Your task to perform on an android device: Open Amazon Image 0: 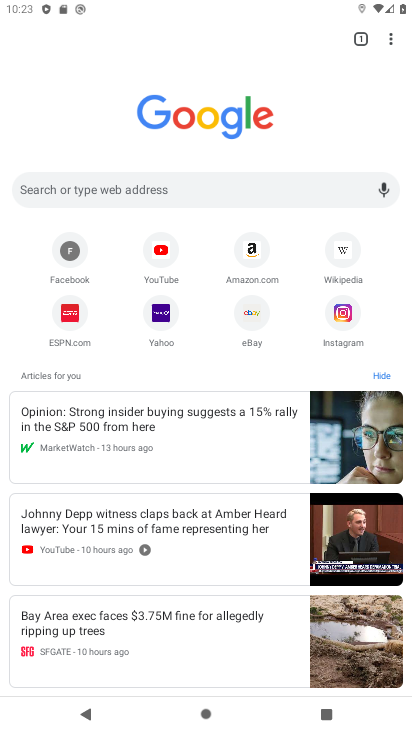
Step 0: click (257, 247)
Your task to perform on an android device: Open Amazon Image 1: 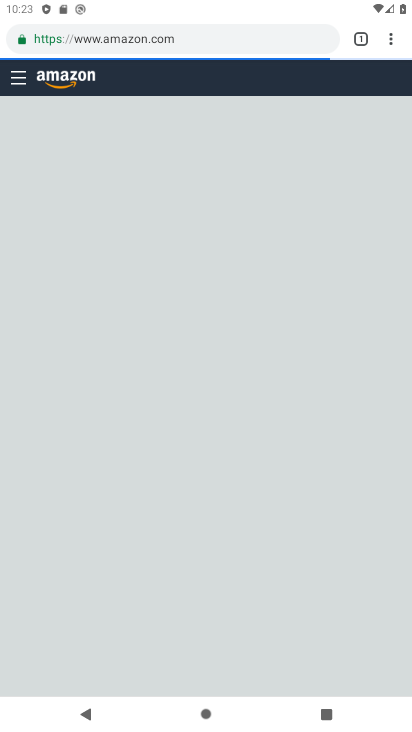
Step 1: task complete